Your task to perform on an android device: Clear all items from cart on amazon.com. Image 0: 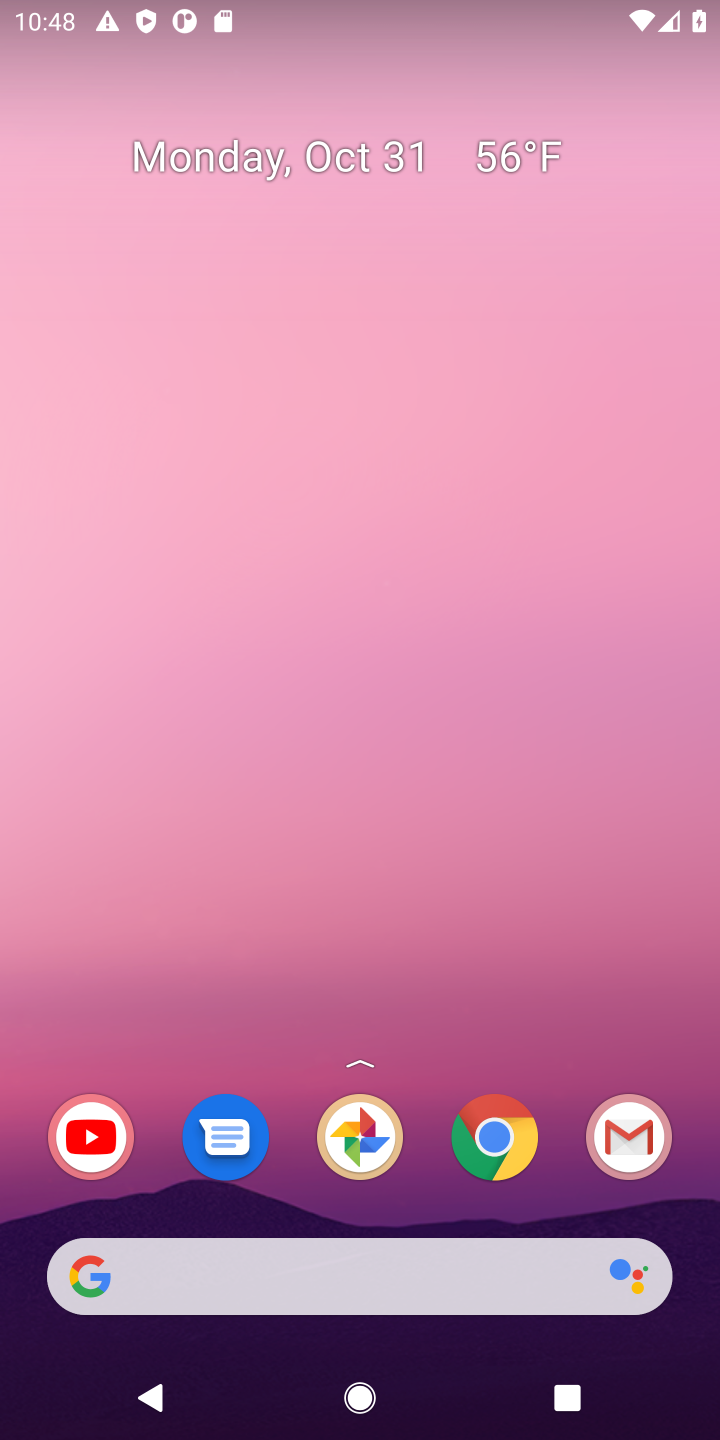
Step 0: click (492, 1139)
Your task to perform on an android device: Clear all items from cart on amazon.com. Image 1: 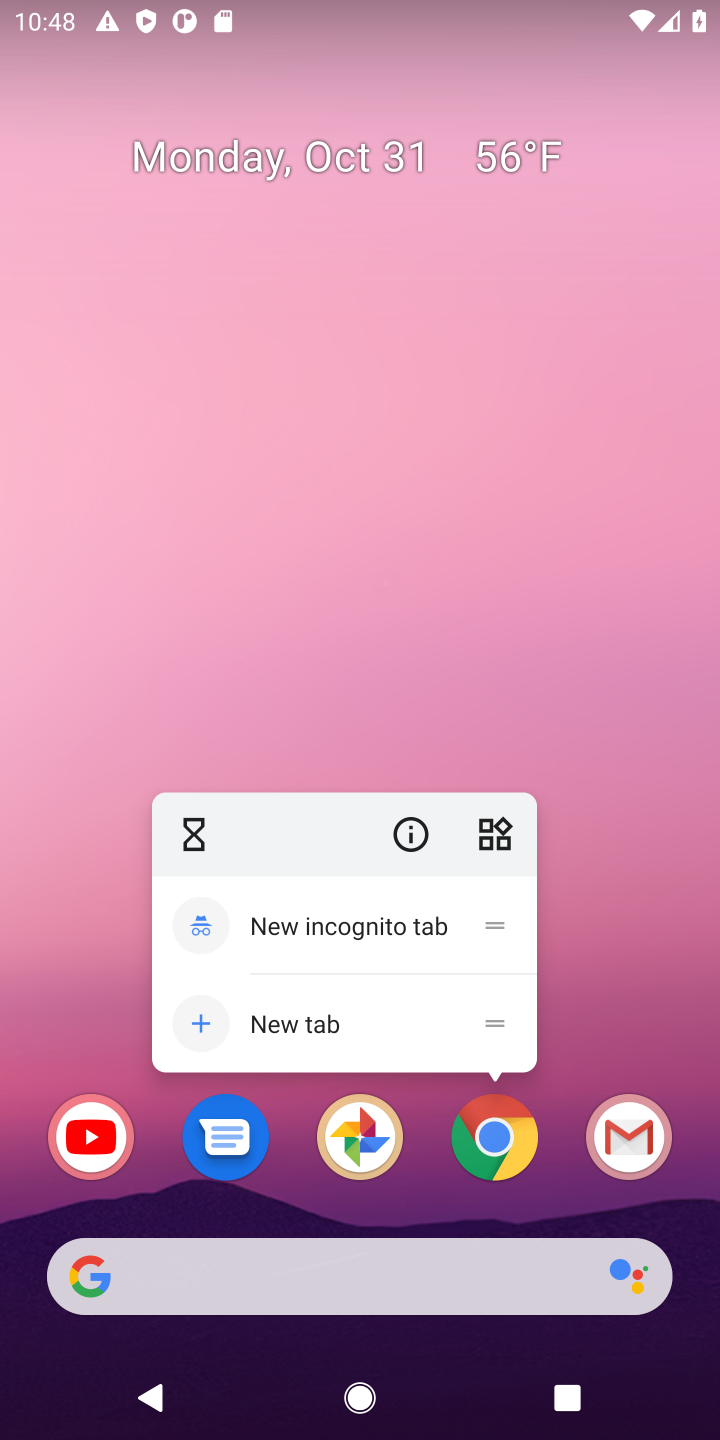
Step 1: click (494, 1138)
Your task to perform on an android device: Clear all items from cart on amazon.com. Image 2: 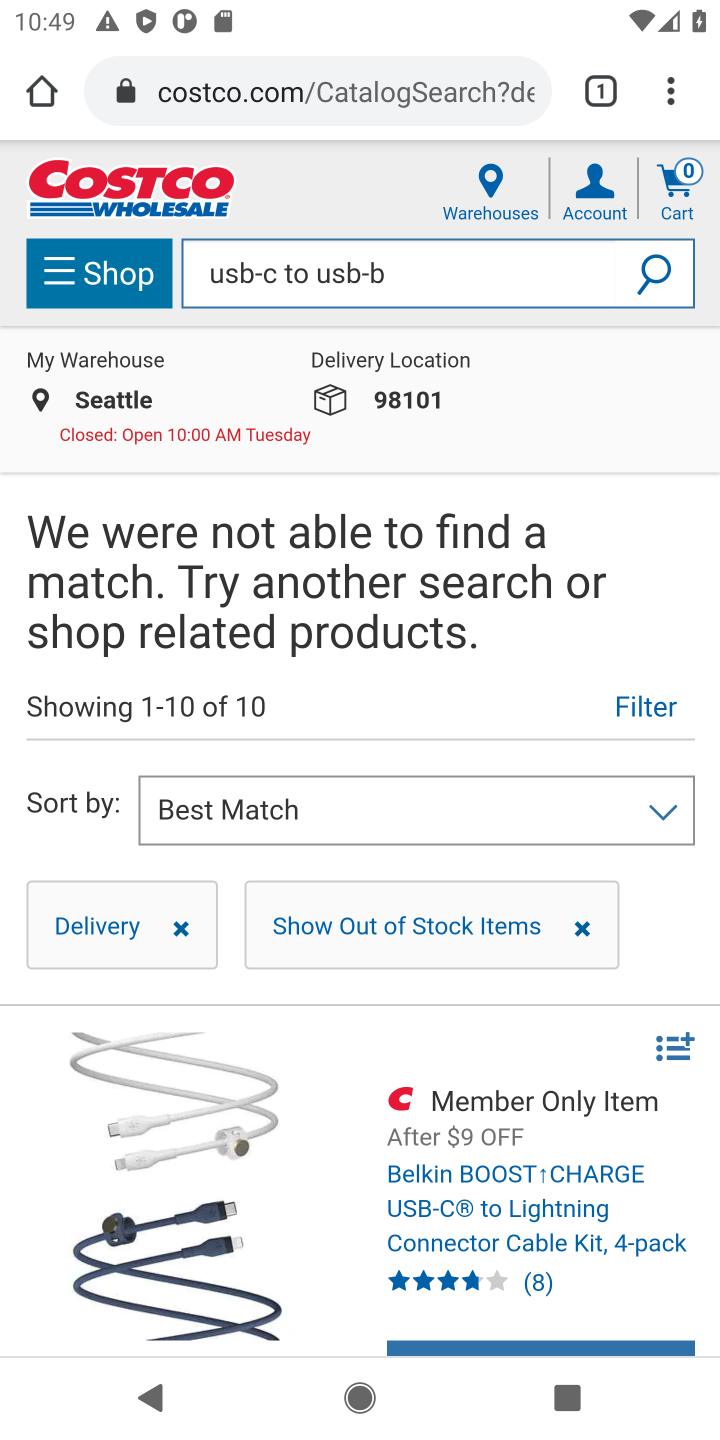
Step 2: click (362, 82)
Your task to perform on an android device: Clear all items from cart on amazon.com. Image 3: 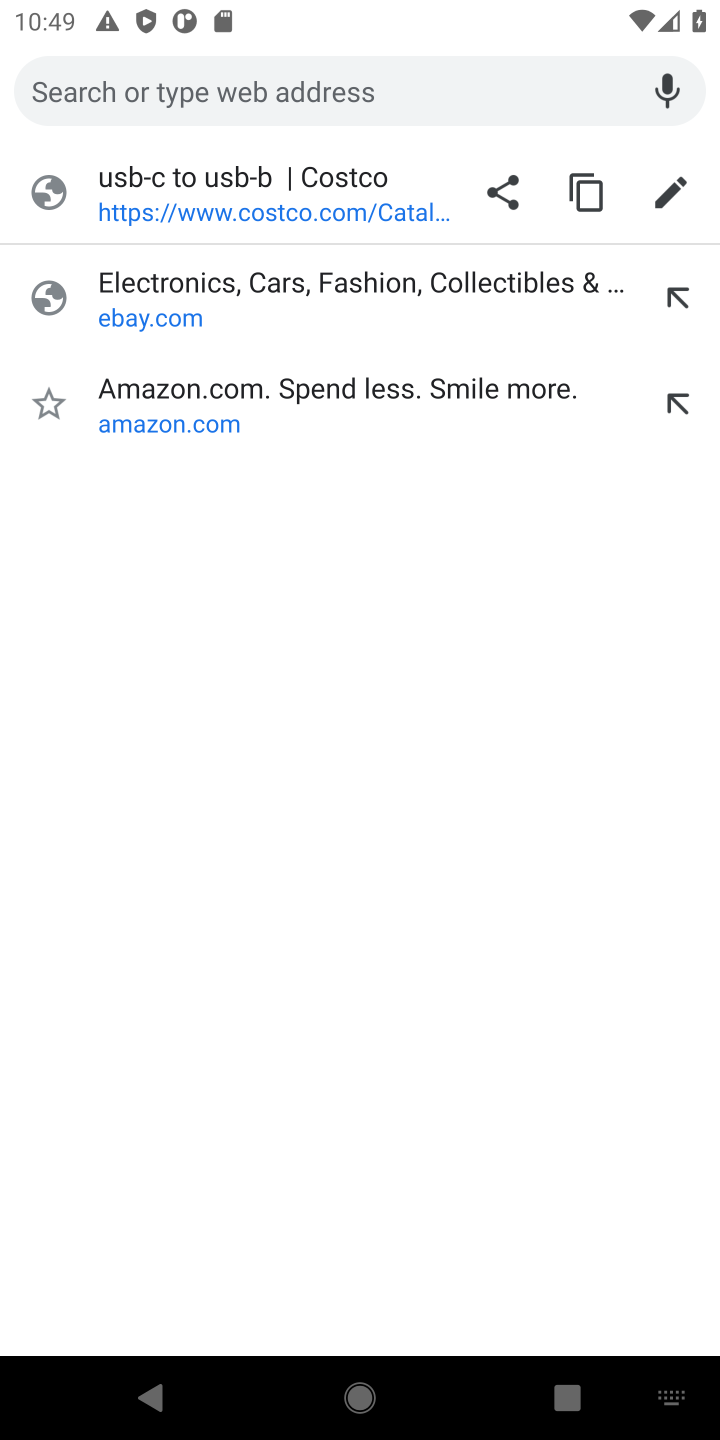
Step 3: type "amazon.com"
Your task to perform on an android device: Clear all items from cart on amazon.com. Image 4: 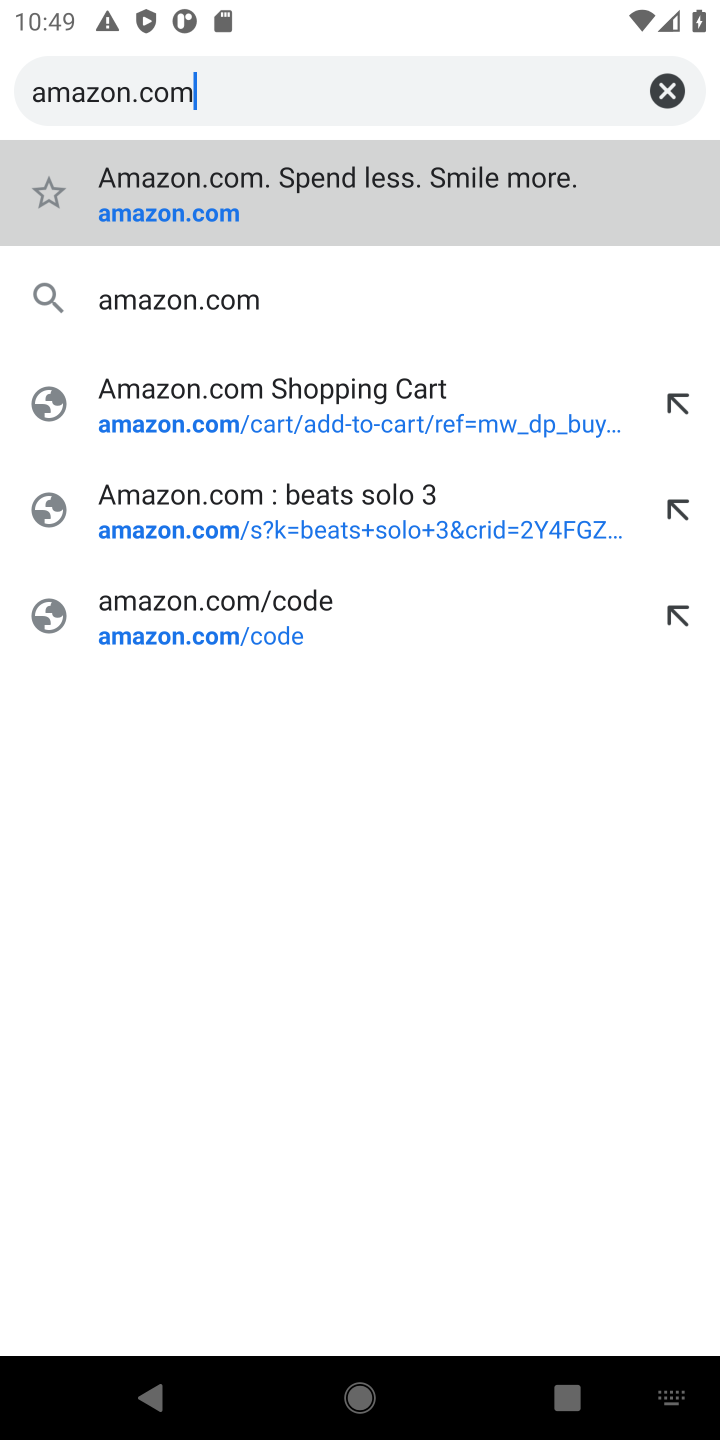
Step 4: click (237, 301)
Your task to perform on an android device: Clear all items from cart on amazon.com. Image 5: 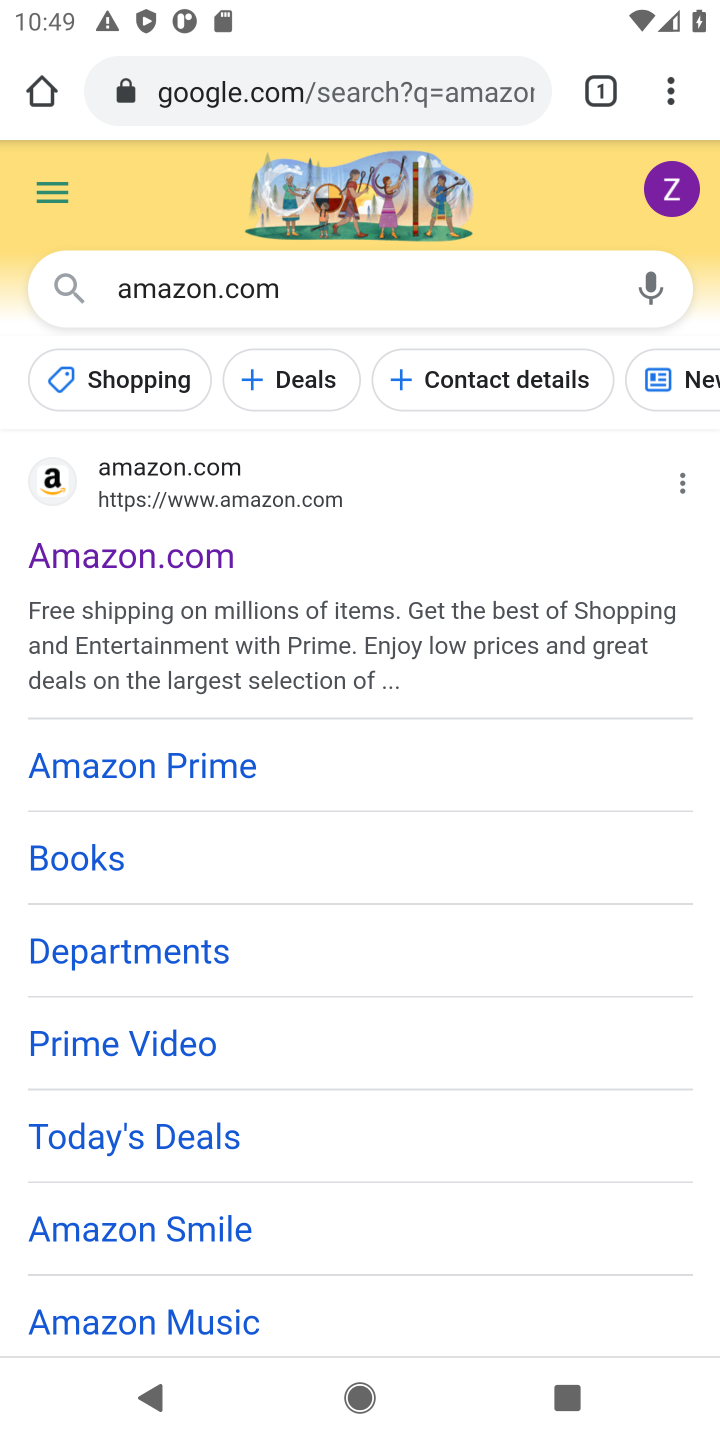
Step 5: click (201, 562)
Your task to perform on an android device: Clear all items from cart on amazon.com. Image 6: 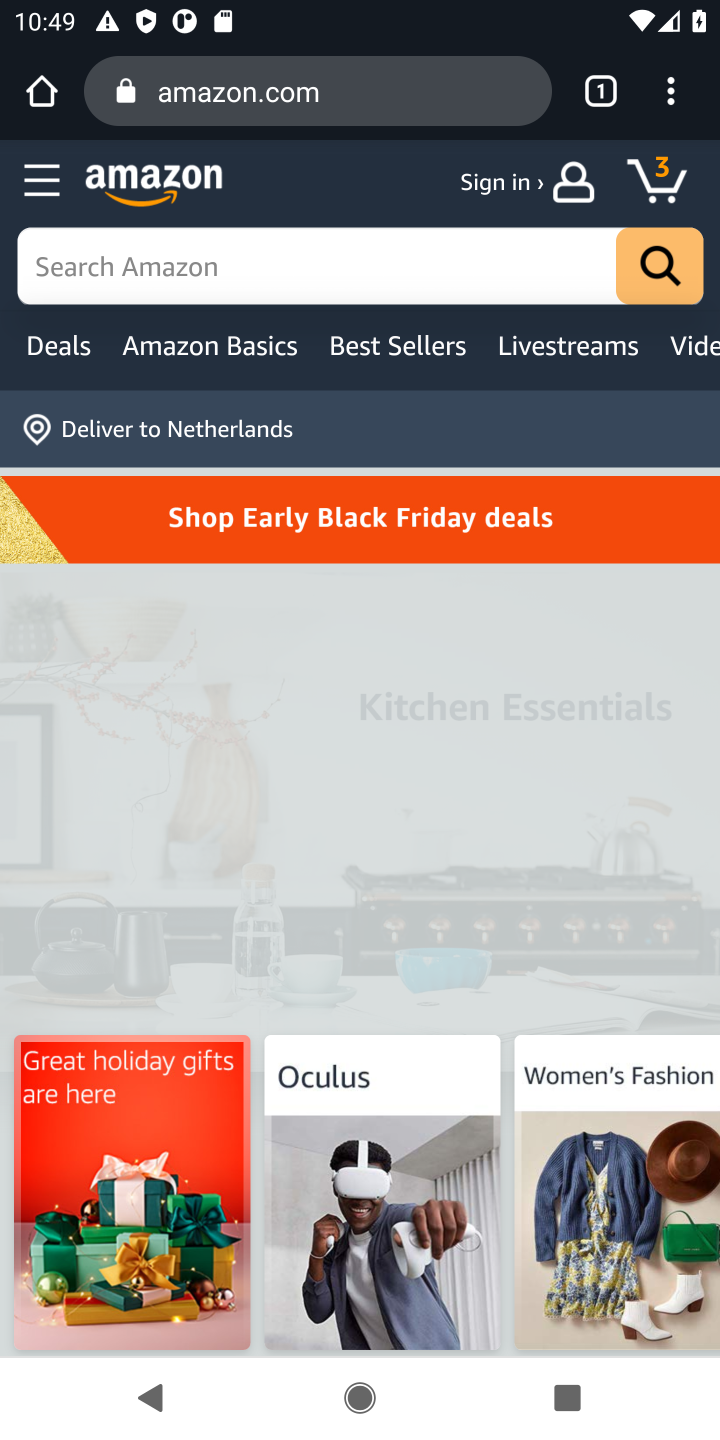
Step 6: click (669, 190)
Your task to perform on an android device: Clear all items from cart on amazon.com. Image 7: 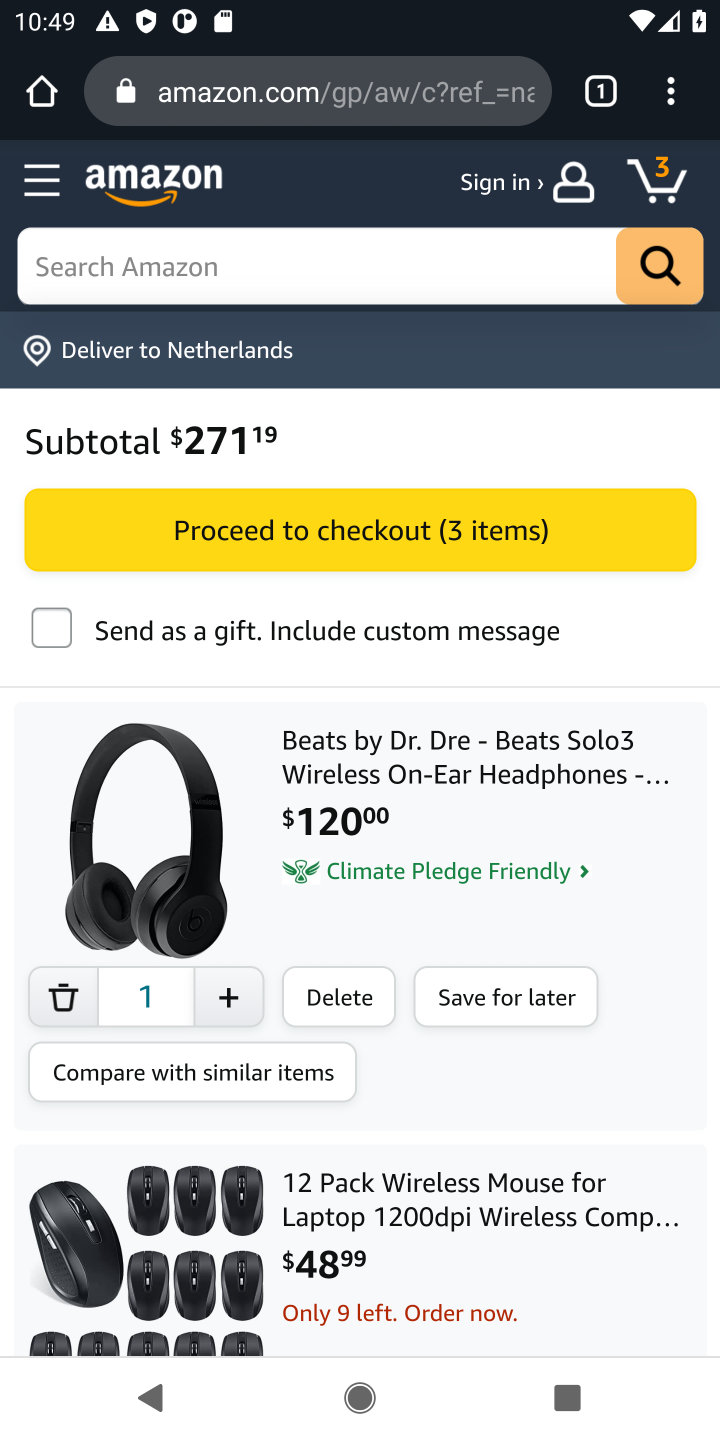
Step 7: click (489, 998)
Your task to perform on an android device: Clear all items from cart on amazon.com. Image 8: 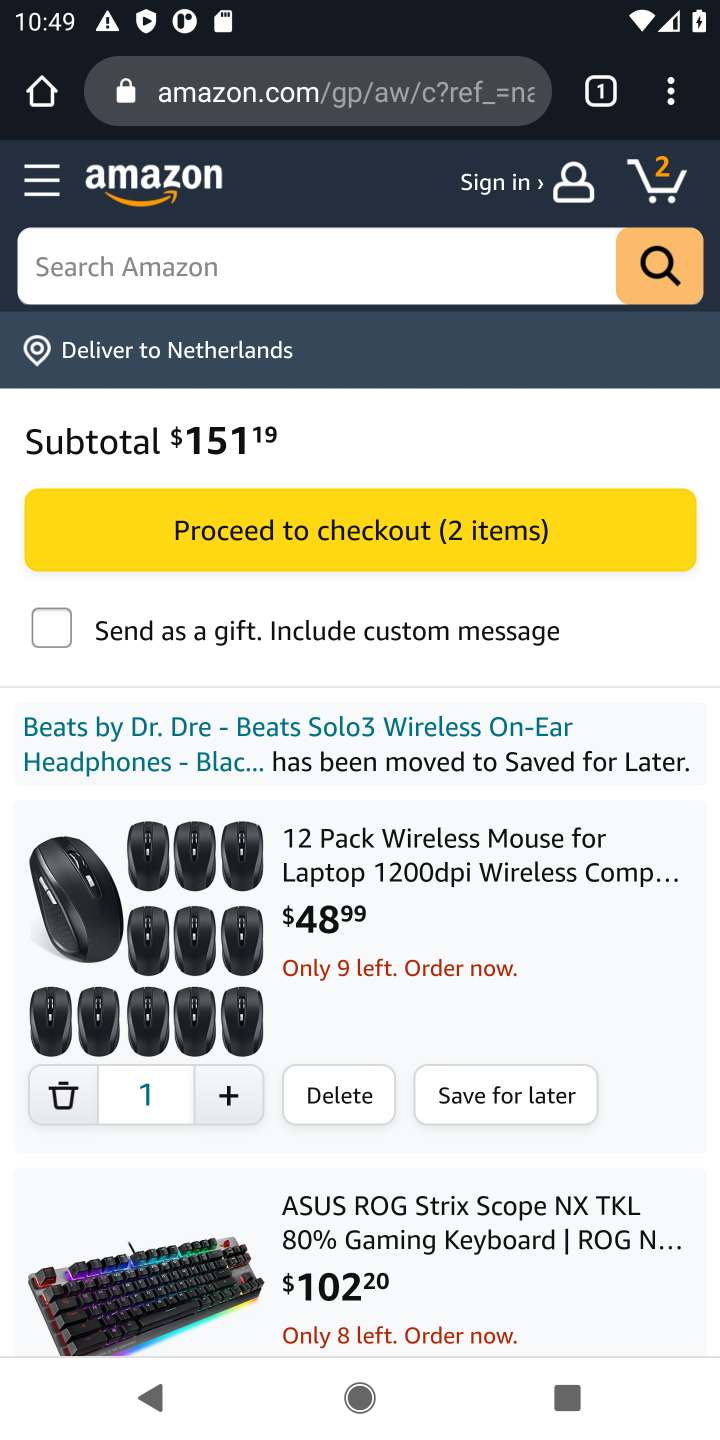
Step 8: click (526, 1101)
Your task to perform on an android device: Clear all items from cart on amazon.com. Image 9: 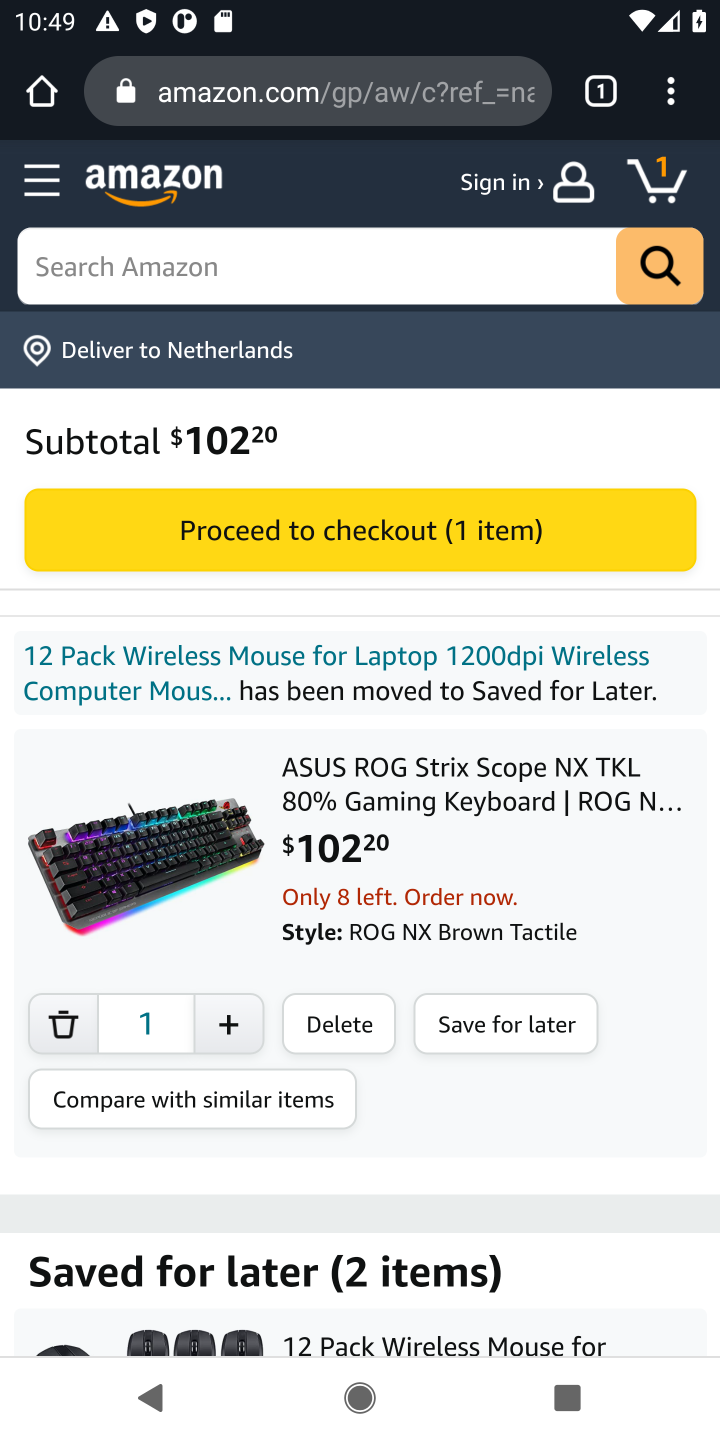
Step 9: click (515, 1036)
Your task to perform on an android device: Clear all items from cart on amazon.com. Image 10: 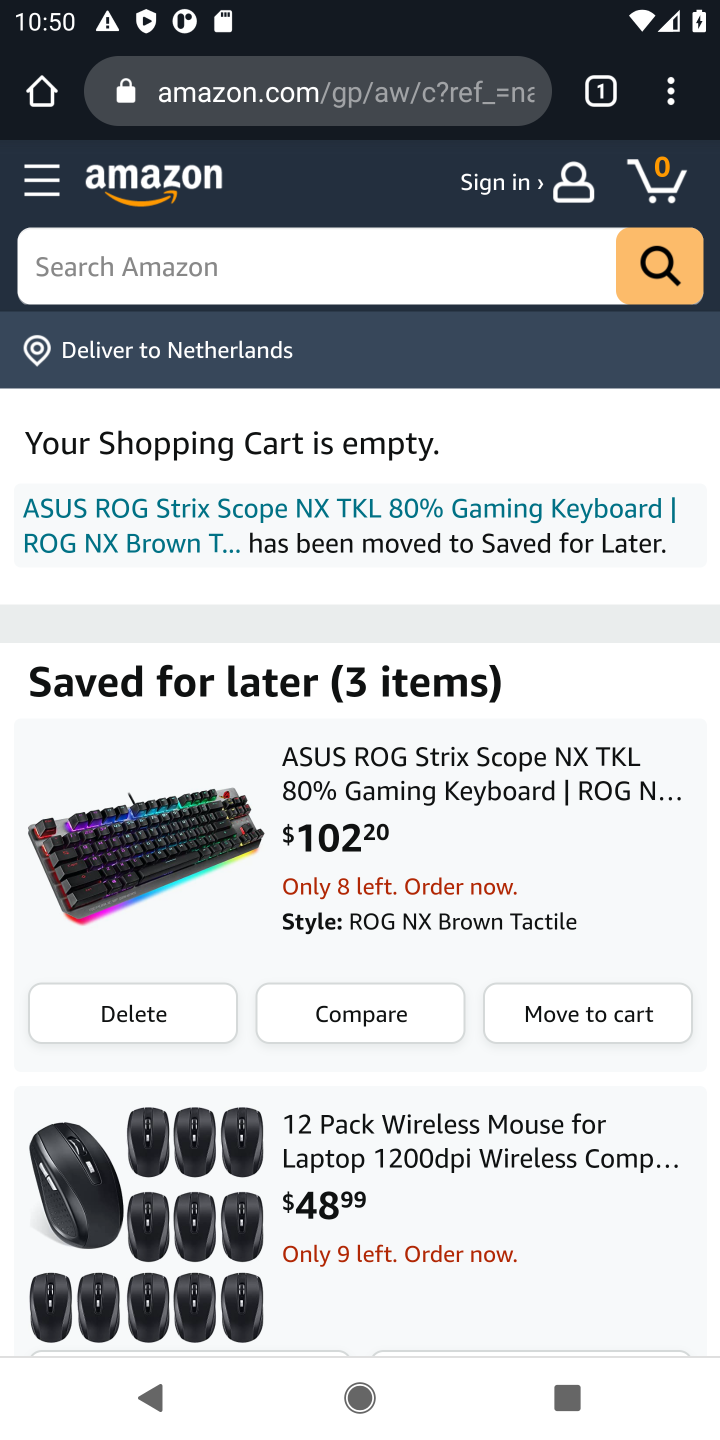
Step 10: task complete